Your task to perform on an android device: What's on my calendar tomorrow? Image 0: 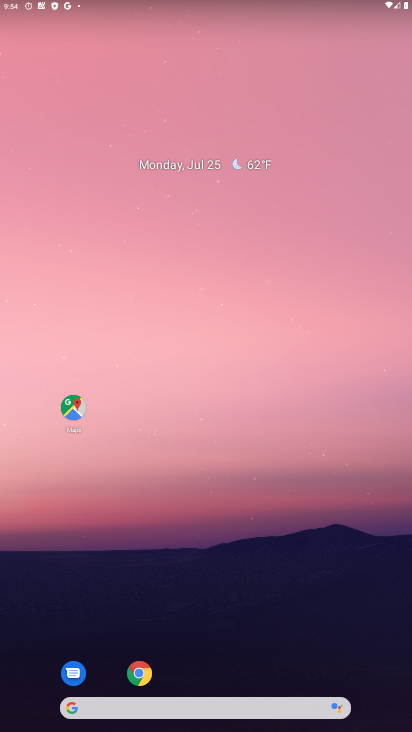
Step 0: drag from (177, 586) to (268, 59)
Your task to perform on an android device: What's on my calendar tomorrow? Image 1: 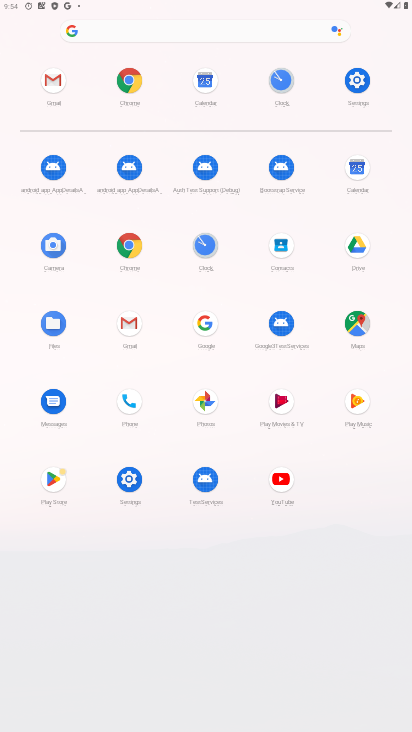
Step 1: click (353, 175)
Your task to perform on an android device: What's on my calendar tomorrow? Image 2: 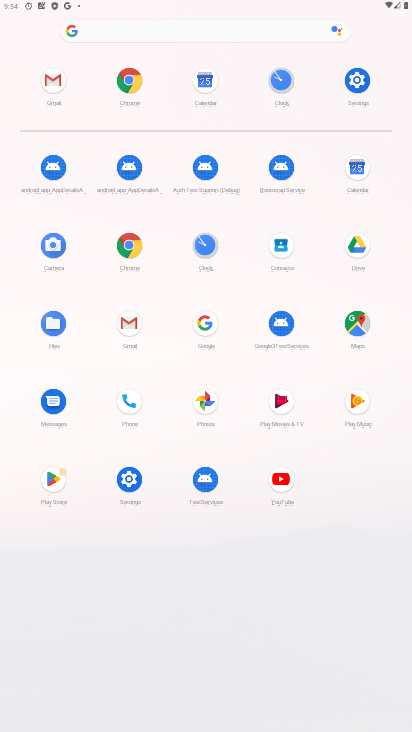
Step 2: click (353, 175)
Your task to perform on an android device: What's on my calendar tomorrow? Image 3: 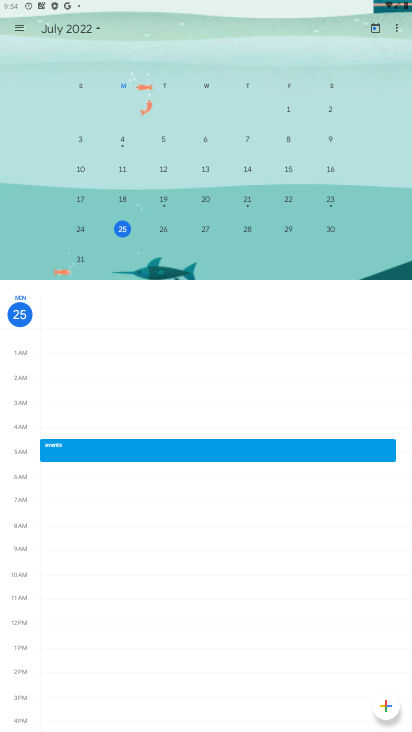
Step 3: click (376, 27)
Your task to perform on an android device: What's on my calendar tomorrow? Image 4: 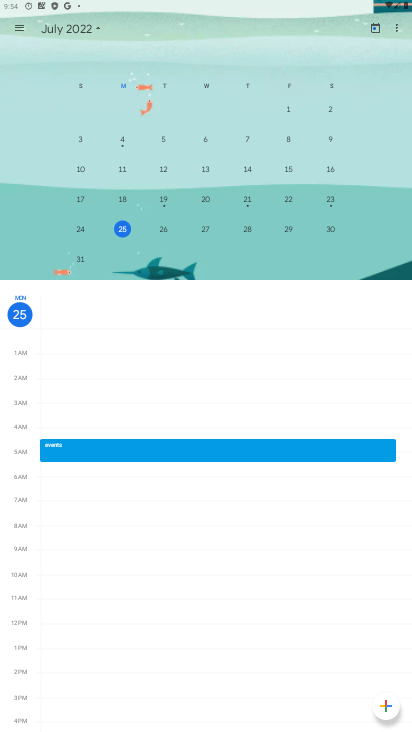
Step 4: click (159, 228)
Your task to perform on an android device: What's on my calendar tomorrow? Image 5: 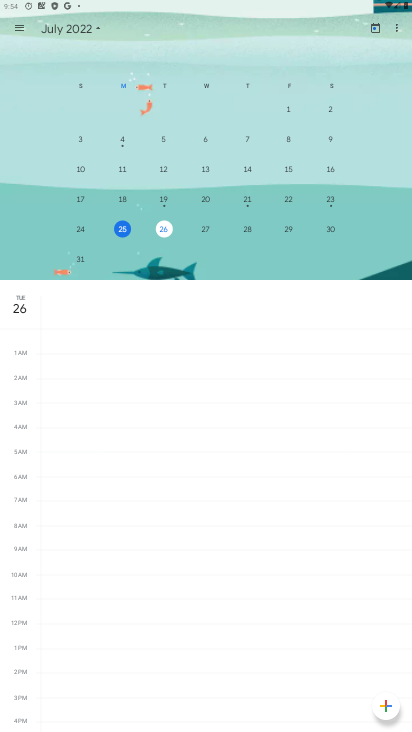
Step 5: task complete